Your task to perform on an android device: Open the Play Movies app and select the watchlist tab. Image 0: 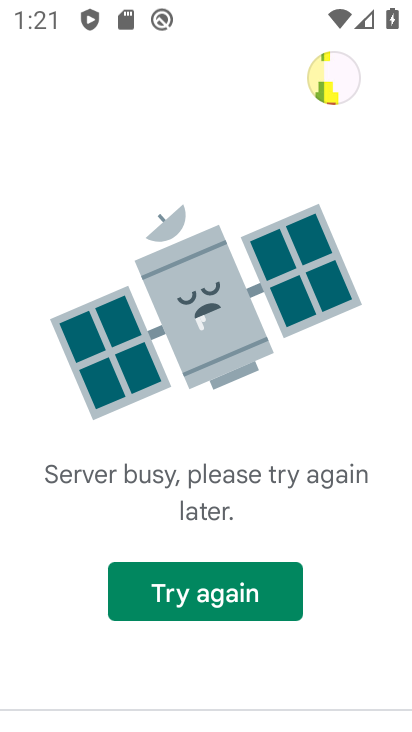
Step 0: press home button
Your task to perform on an android device: Open the Play Movies app and select the watchlist tab. Image 1: 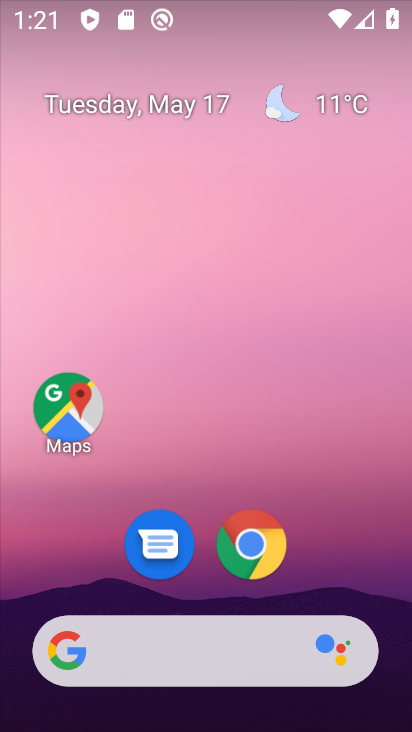
Step 1: drag from (306, 577) to (331, 38)
Your task to perform on an android device: Open the Play Movies app and select the watchlist tab. Image 2: 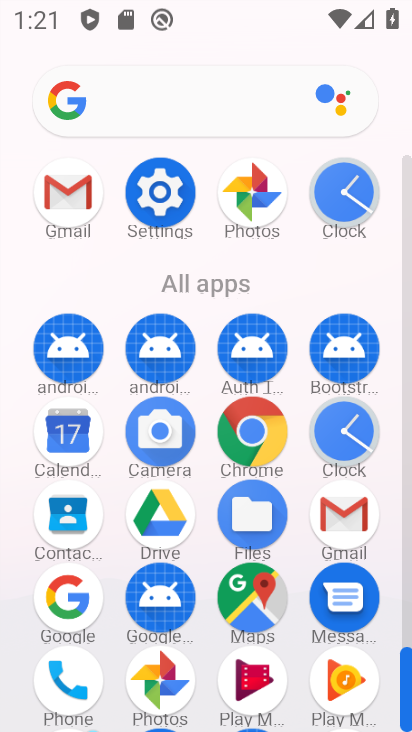
Step 2: click (268, 673)
Your task to perform on an android device: Open the Play Movies app and select the watchlist tab. Image 3: 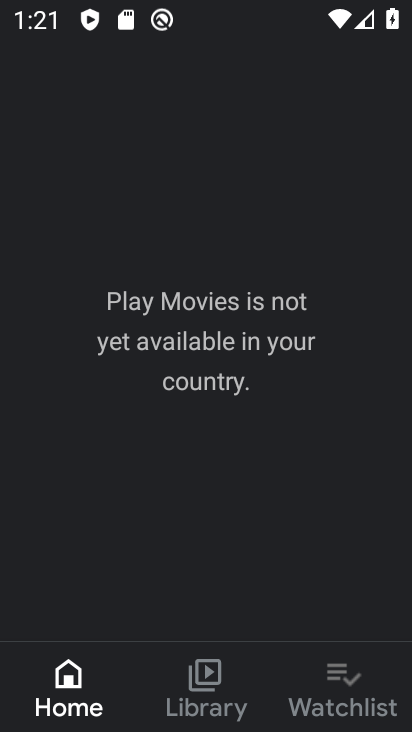
Step 3: click (341, 670)
Your task to perform on an android device: Open the Play Movies app and select the watchlist tab. Image 4: 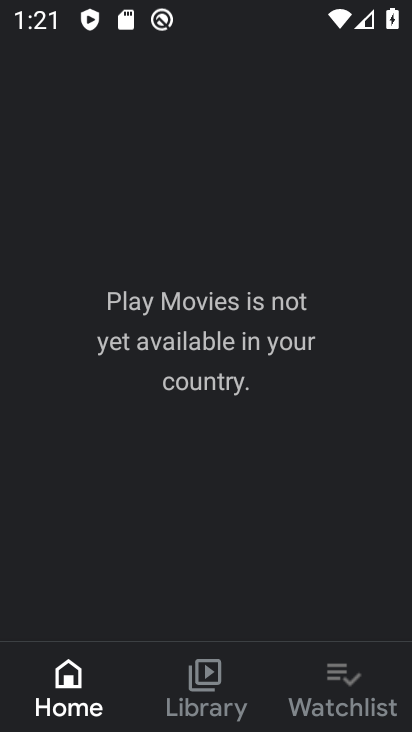
Step 4: click (341, 670)
Your task to perform on an android device: Open the Play Movies app and select the watchlist tab. Image 5: 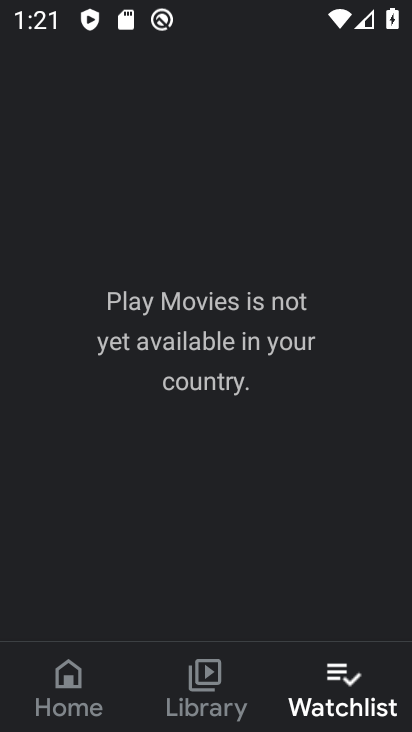
Step 5: task complete